Your task to perform on an android device: visit the assistant section in the google photos Image 0: 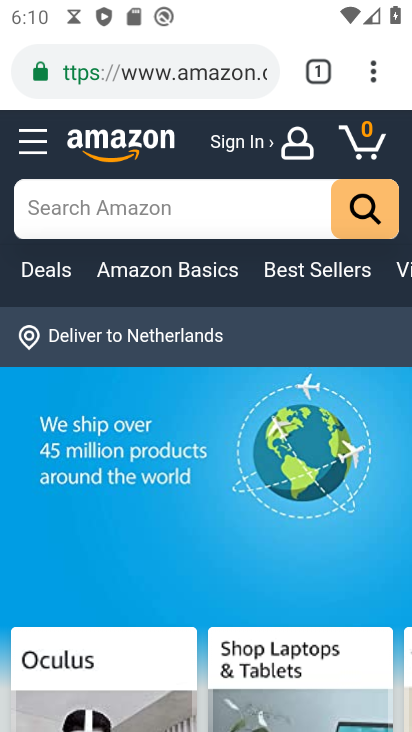
Step 0: press home button
Your task to perform on an android device: visit the assistant section in the google photos Image 1: 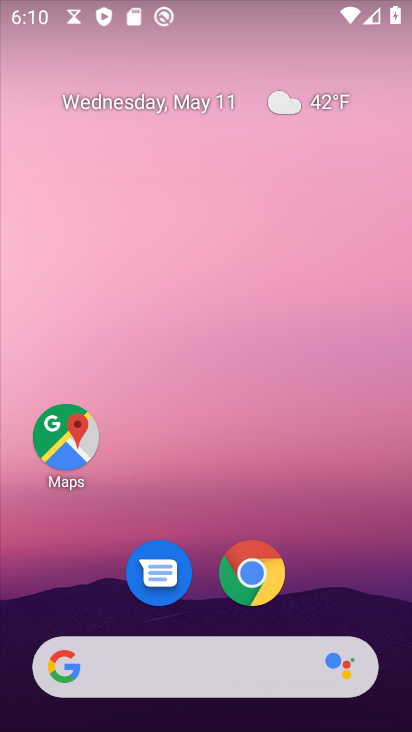
Step 1: drag from (320, 608) to (281, 313)
Your task to perform on an android device: visit the assistant section in the google photos Image 2: 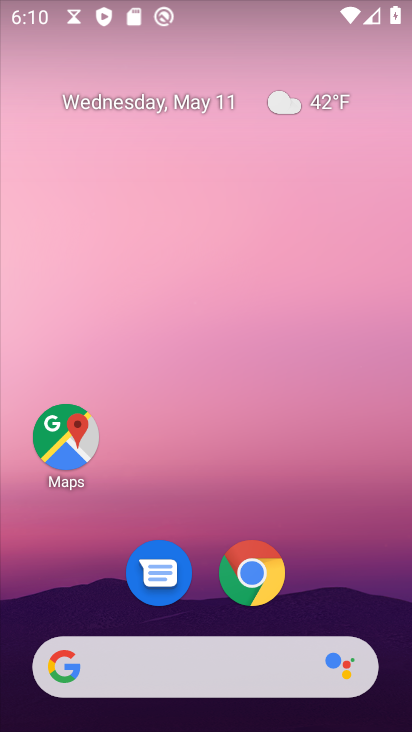
Step 2: drag from (265, 337) to (202, 111)
Your task to perform on an android device: visit the assistant section in the google photos Image 3: 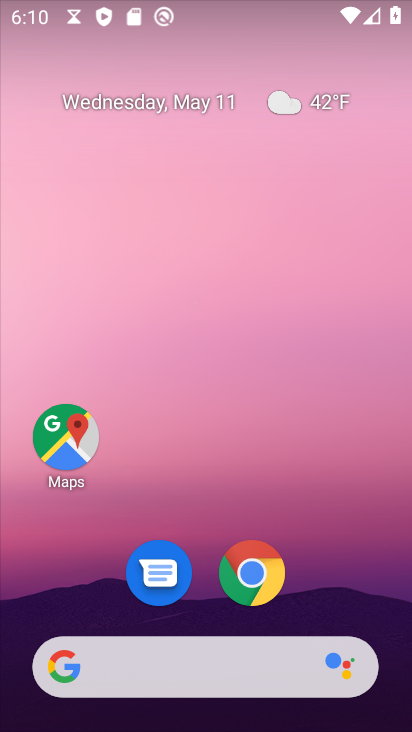
Step 3: drag from (284, 390) to (257, 188)
Your task to perform on an android device: visit the assistant section in the google photos Image 4: 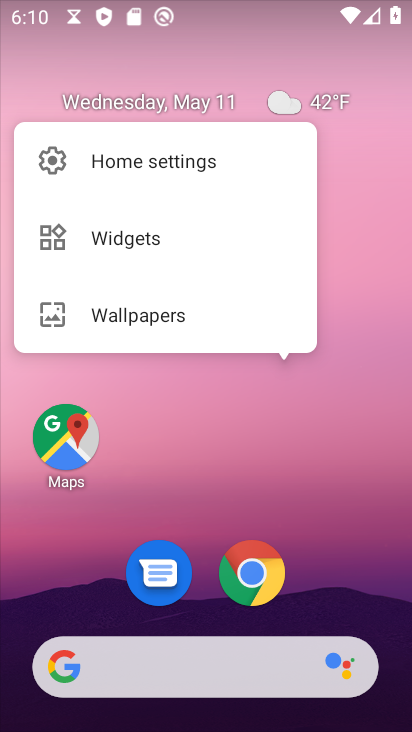
Step 4: click (297, 562)
Your task to perform on an android device: visit the assistant section in the google photos Image 5: 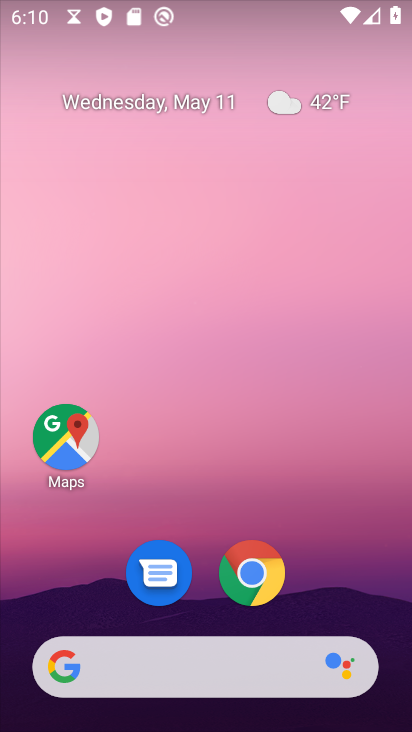
Step 5: drag from (311, 581) to (208, 108)
Your task to perform on an android device: visit the assistant section in the google photos Image 6: 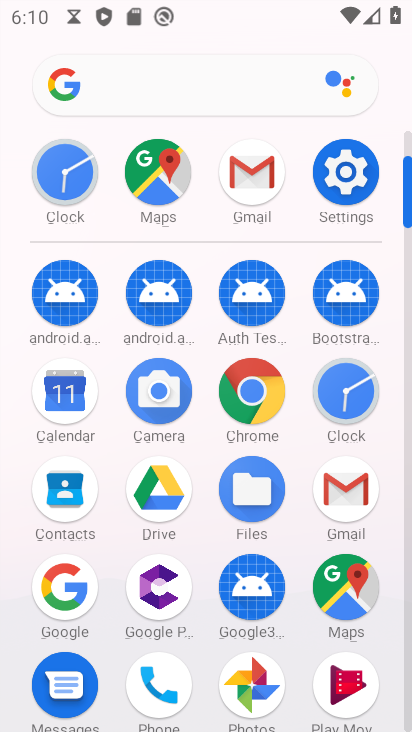
Step 6: click (243, 687)
Your task to perform on an android device: visit the assistant section in the google photos Image 7: 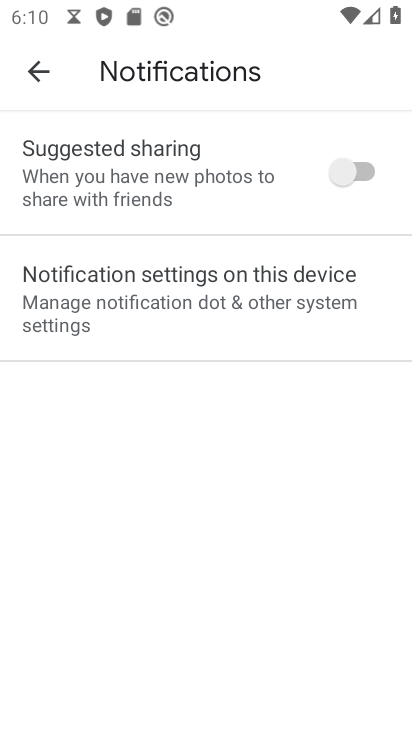
Step 7: click (28, 72)
Your task to perform on an android device: visit the assistant section in the google photos Image 8: 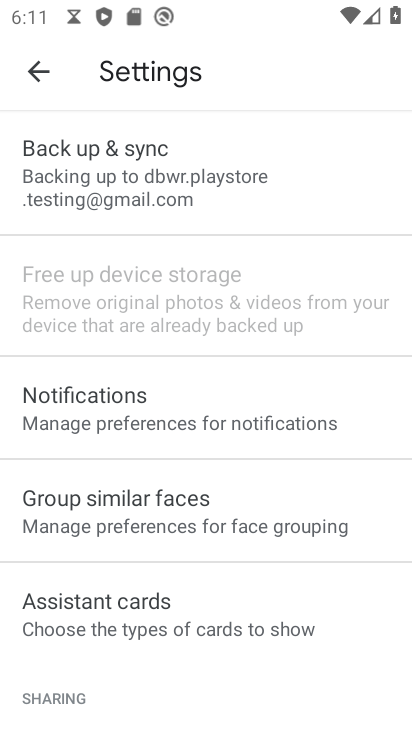
Step 8: click (27, 74)
Your task to perform on an android device: visit the assistant section in the google photos Image 9: 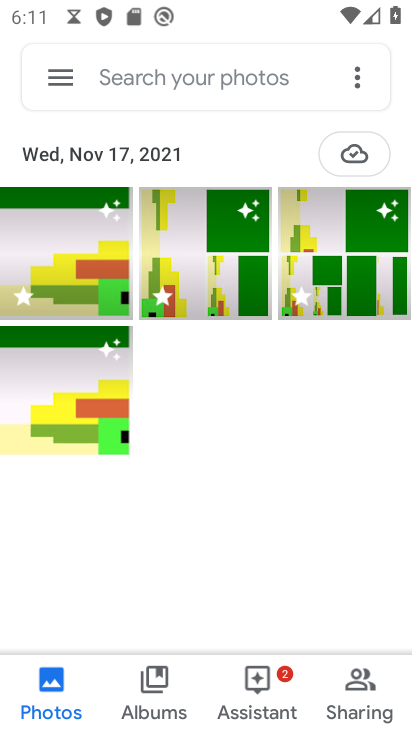
Step 9: click (263, 703)
Your task to perform on an android device: visit the assistant section in the google photos Image 10: 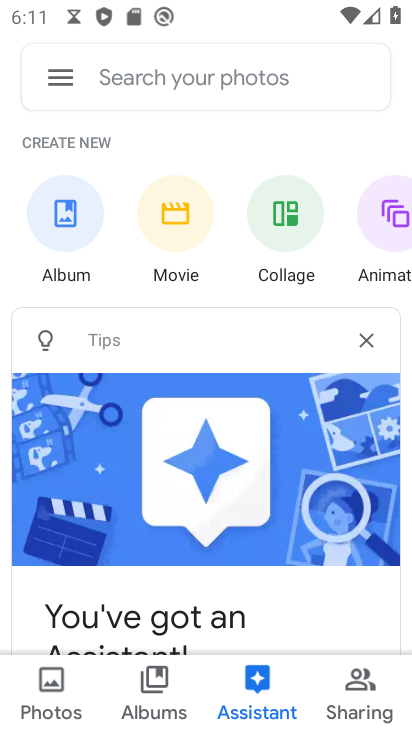
Step 10: task complete